Your task to perform on an android device: Search for Italian restaurants on Maps Image 0: 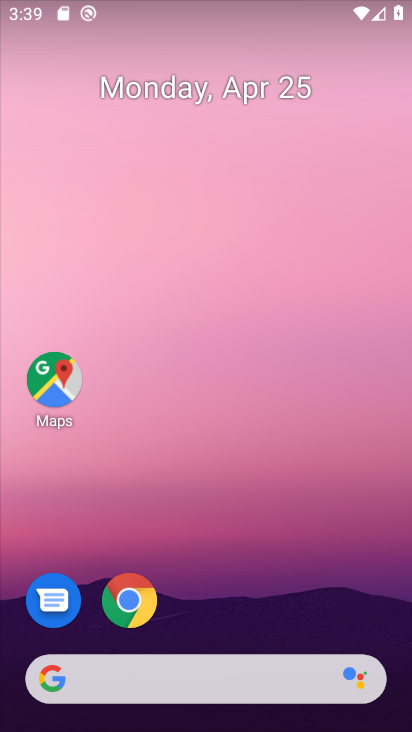
Step 0: click (53, 390)
Your task to perform on an android device: Search for Italian restaurants on Maps Image 1: 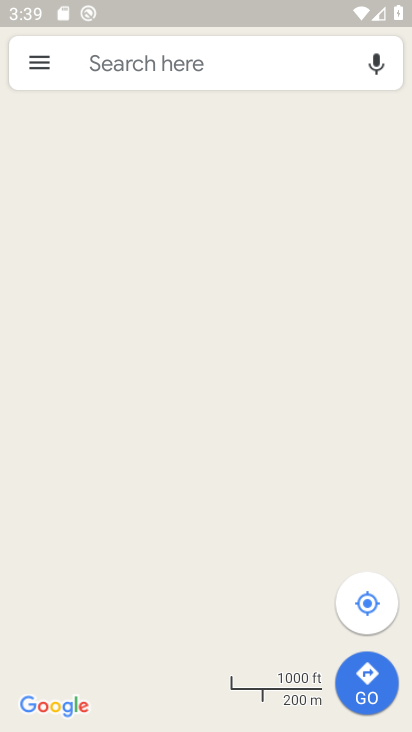
Step 1: click (178, 70)
Your task to perform on an android device: Search for Italian restaurants on Maps Image 2: 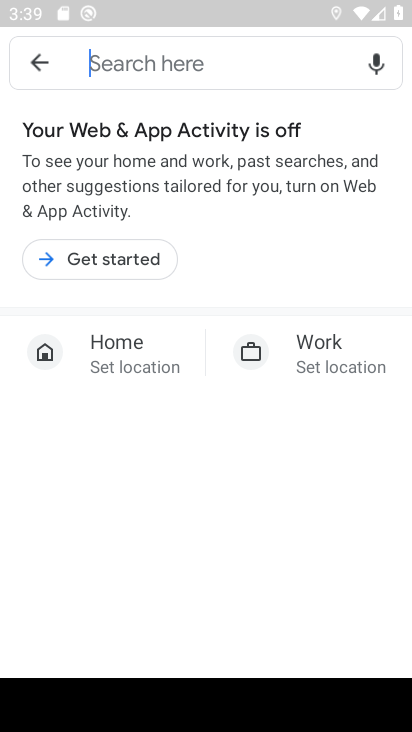
Step 2: type "italian"
Your task to perform on an android device: Search for Italian restaurants on Maps Image 3: 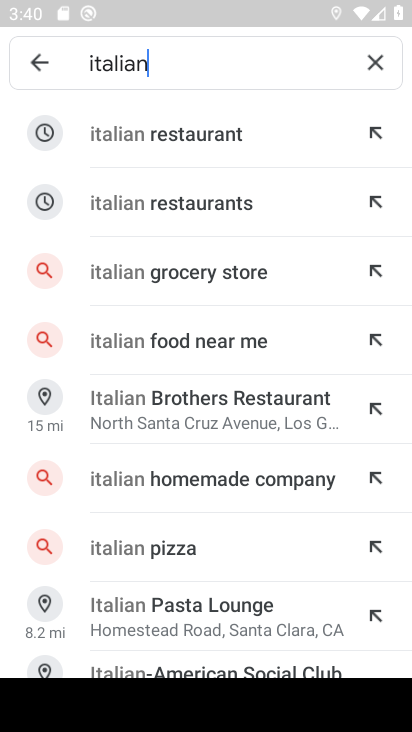
Step 3: click (197, 139)
Your task to perform on an android device: Search for Italian restaurants on Maps Image 4: 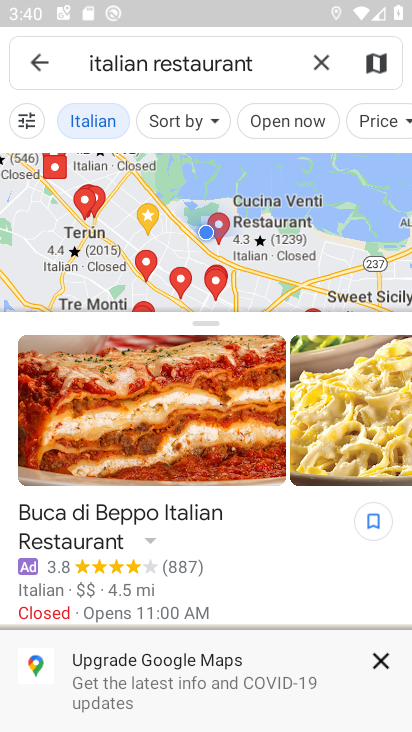
Step 4: task complete